Your task to perform on an android device: open app "Microsoft Outlook" (install if not already installed) Image 0: 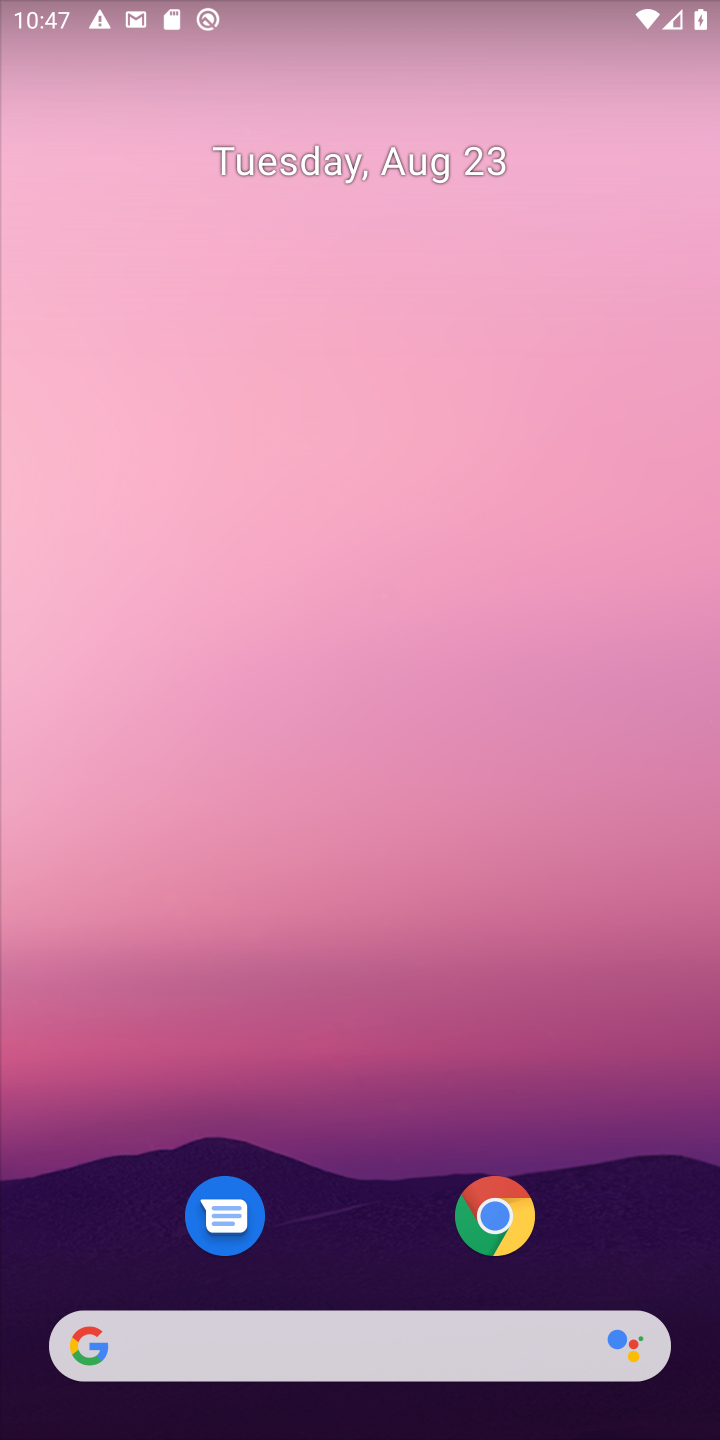
Step 0: drag from (288, 1382) to (372, 363)
Your task to perform on an android device: open app "Microsoft Outlook" (install if not already installed) Image 1: 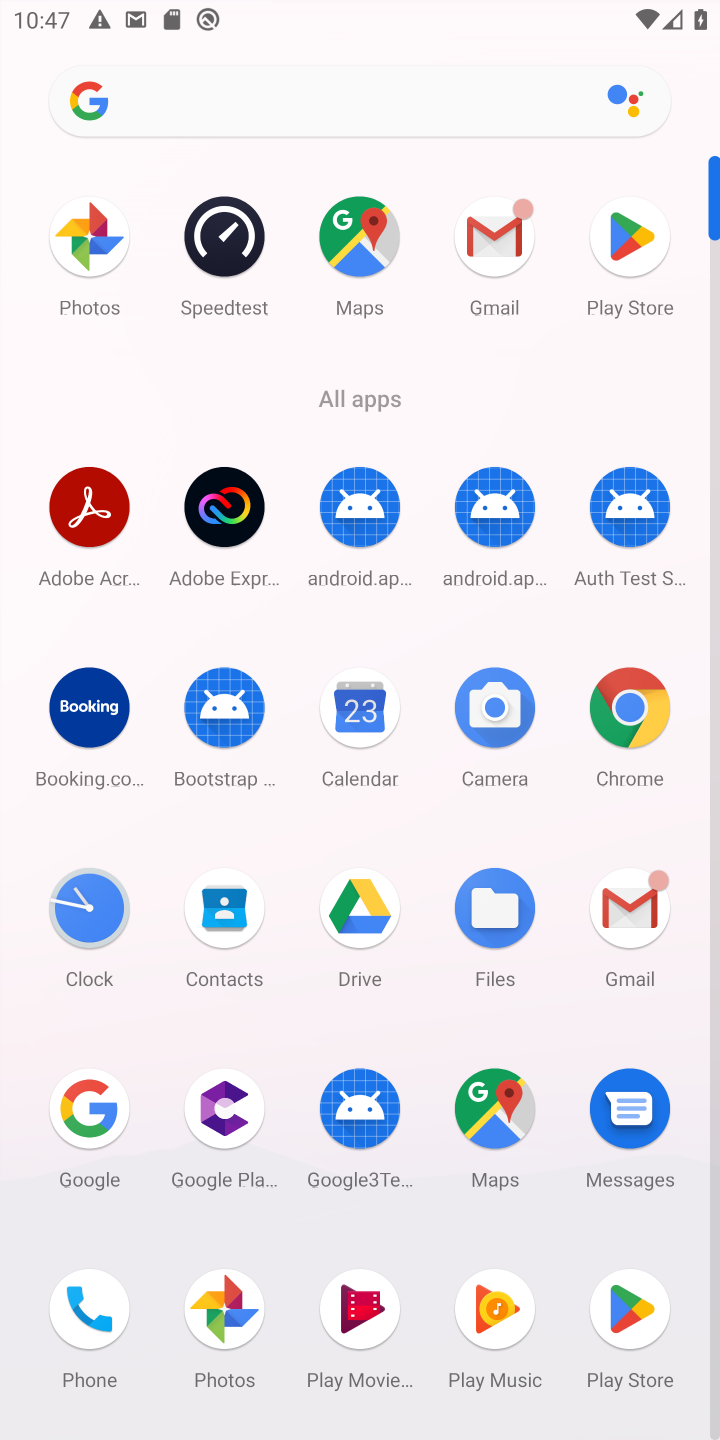
Step 1: click (625, 253)
Your task to perform on an android device: open app "Microsoft Outlook" (install if not already installed) Image 2: 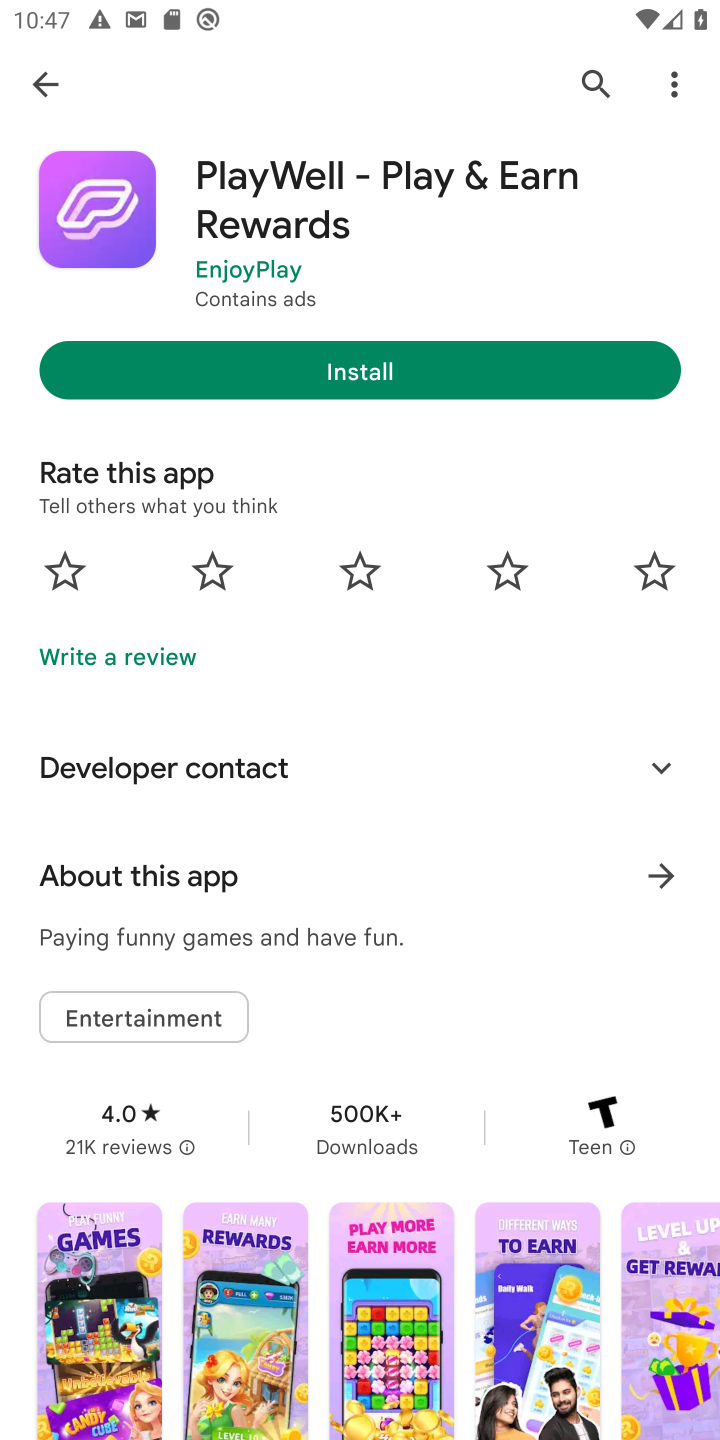
Step 2: press back button
Your task to perform on an android device: open app "Microsoft Outlook" (install if not already installed) Image 3: 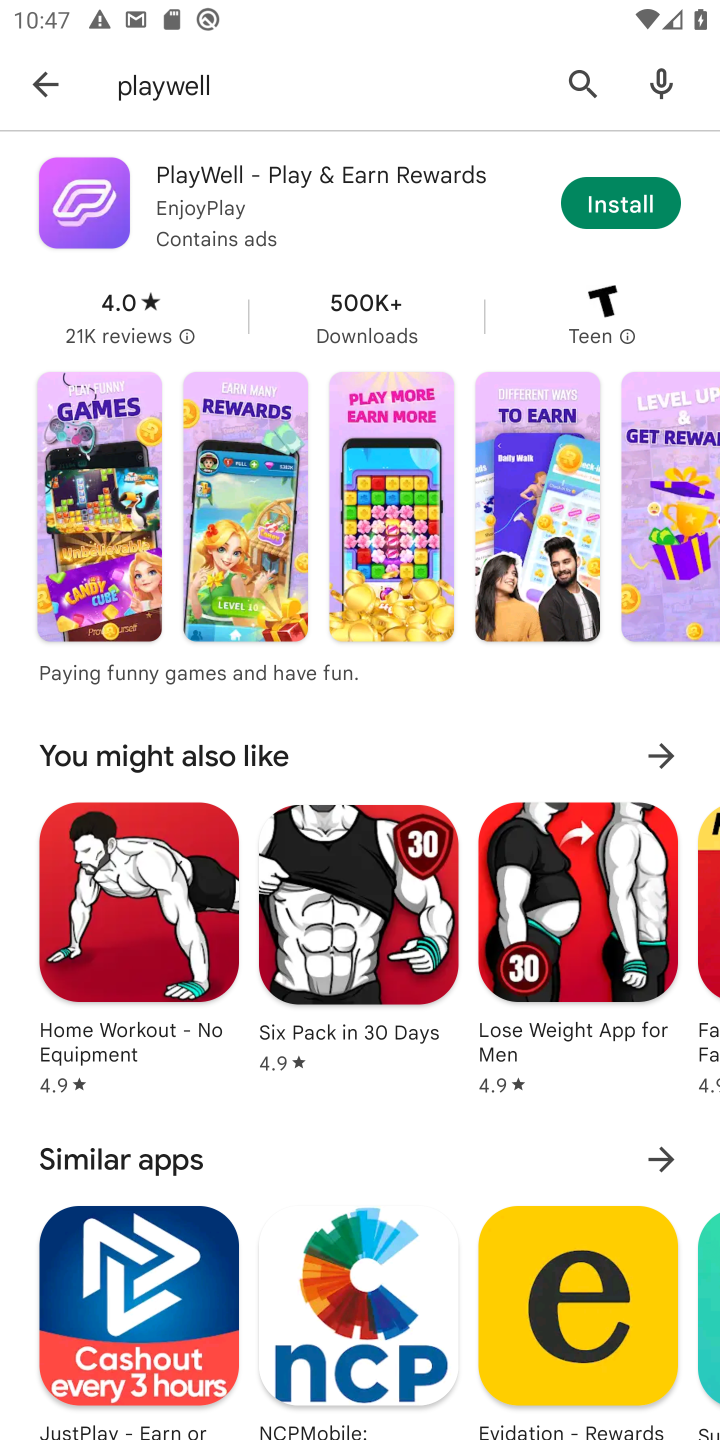
Step 3: press back button
Your task to perform on an android device: open app "Microsoft Outlook" (install if not already installed) Image 4: 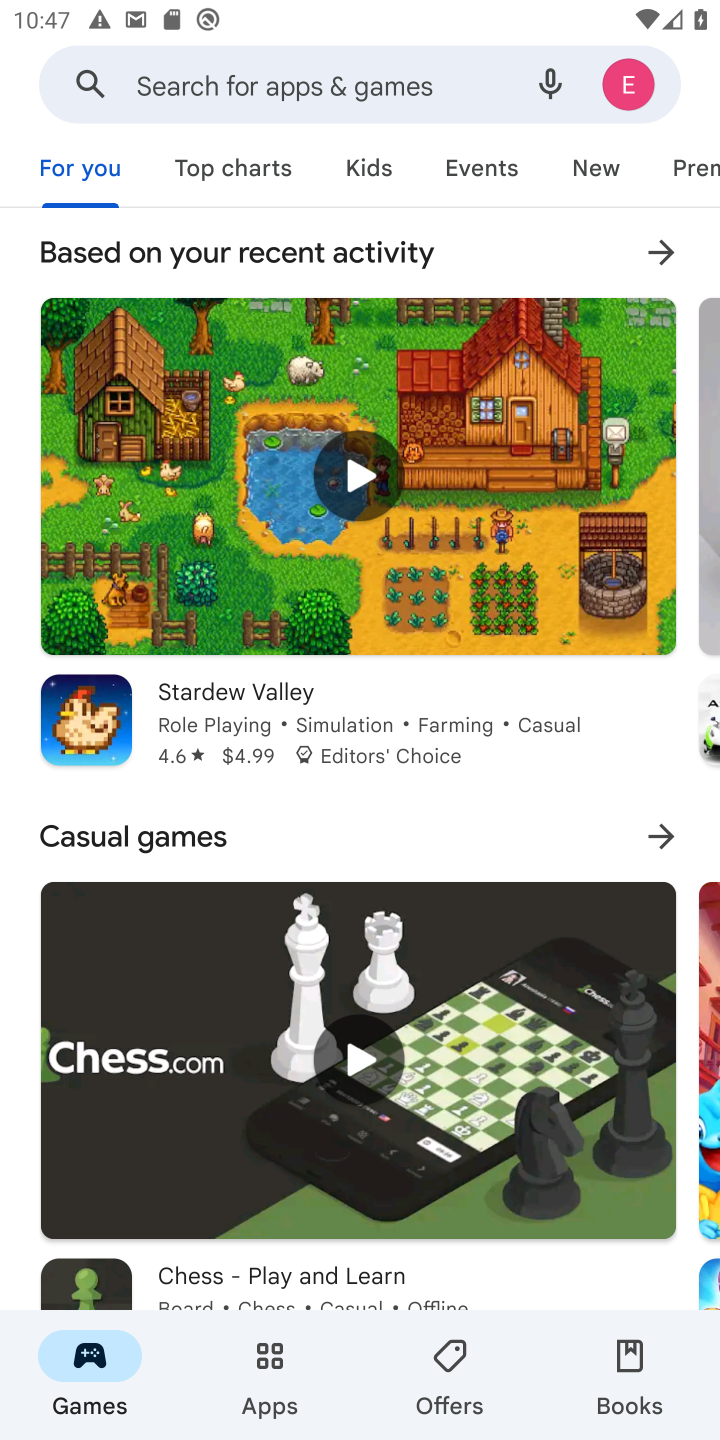
Step 4: click (278, 99)
Your task to perform on an android device: open app "Microsoft Outlook" (install if not already installed) Image 5: 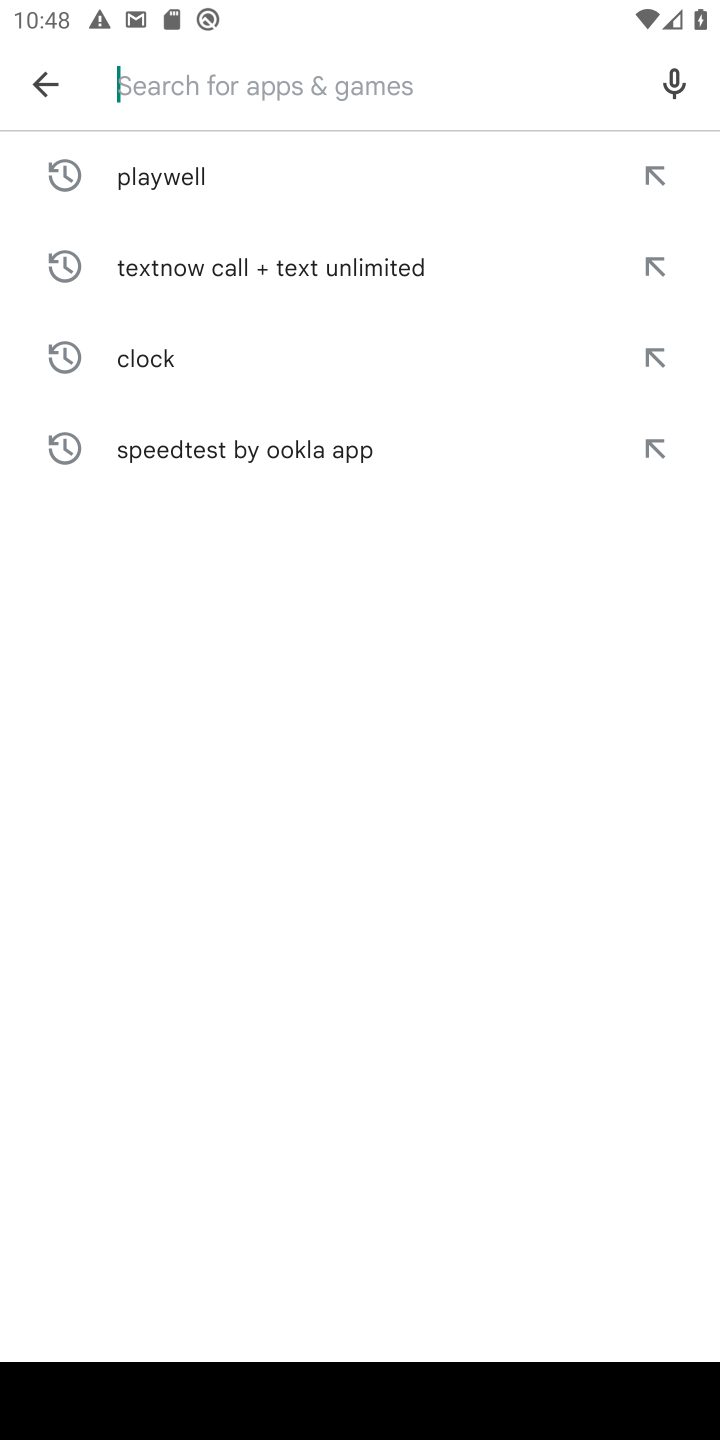
Step 5: type "Microsoft Outlook"
Your task to perform on an android device: open app "Microsoft Outlook" (install if not already installed) Image 6: 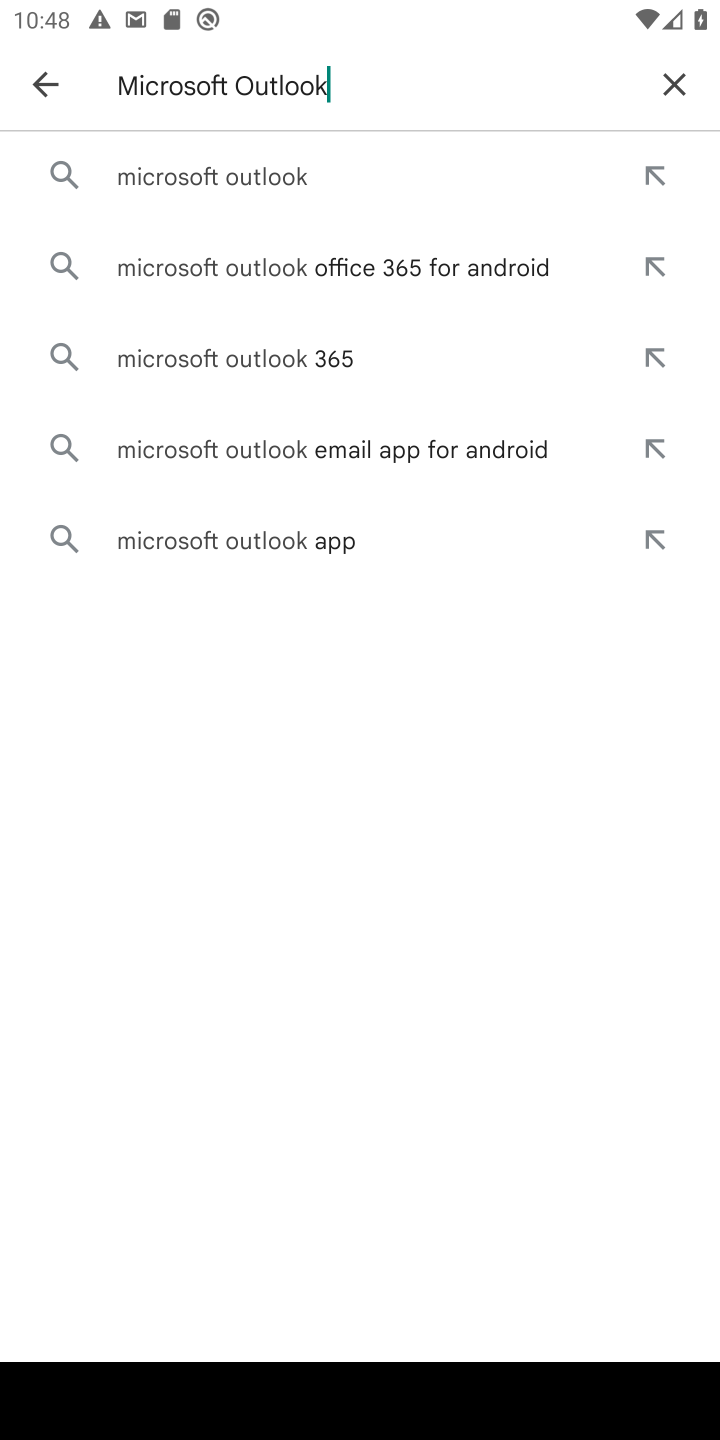
Step 6: click (201, 174)
Your task to perform on an android device: open app "Microsoft Outlook" (install if not already installed) Image 7: 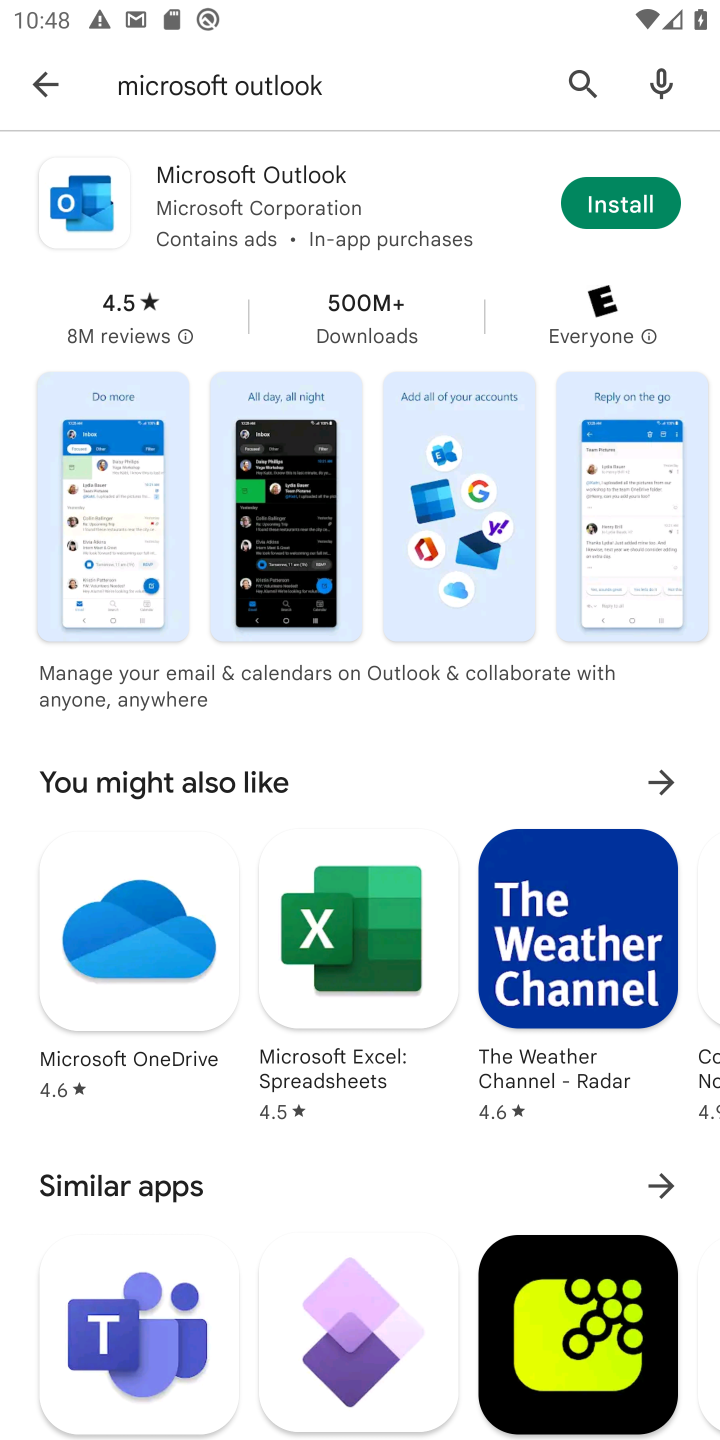
Step 7: click (619, 197)
Your task to perform on an android device: open app "Microsoft Outlook" (install if not already installed) Image 8: 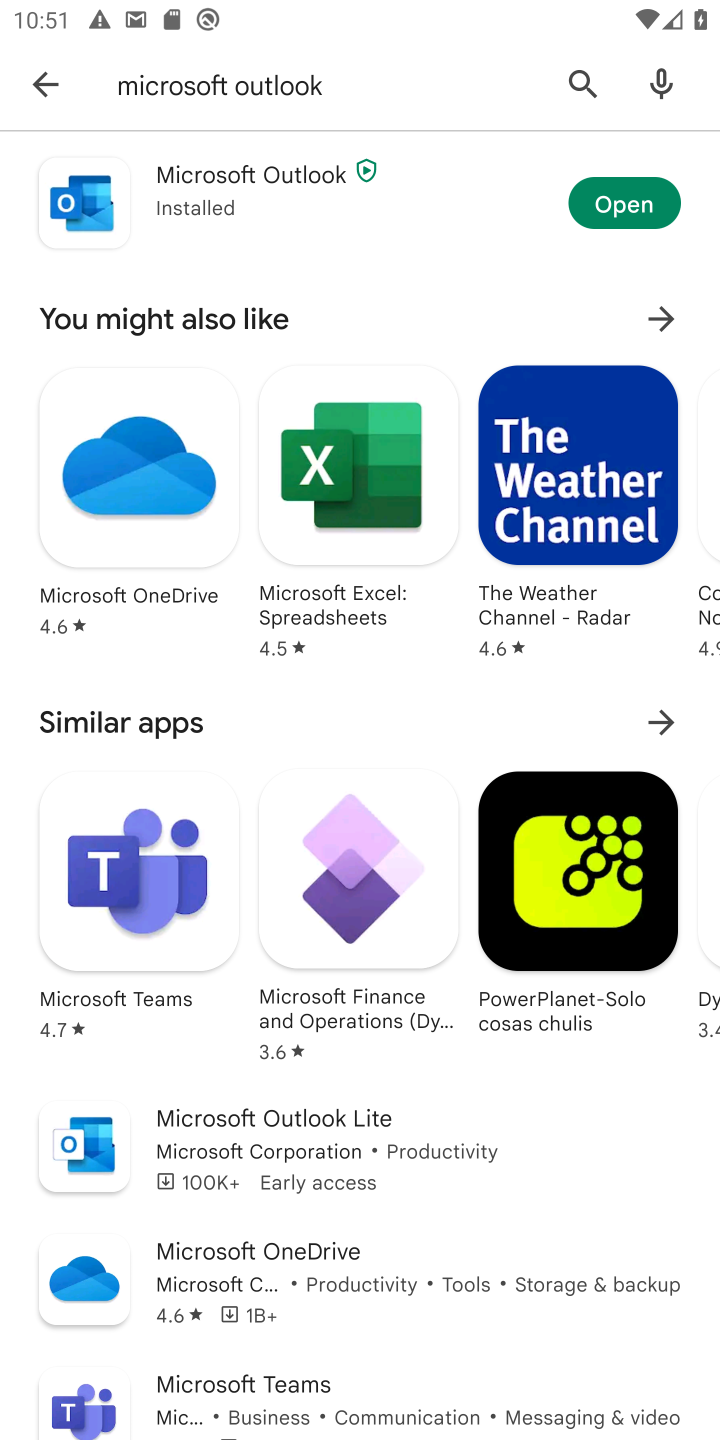
Step 8: click (613, 198)
Your task to perform on an android device: open app "Microsoft Outlook" (install if not already installed) Image 9: 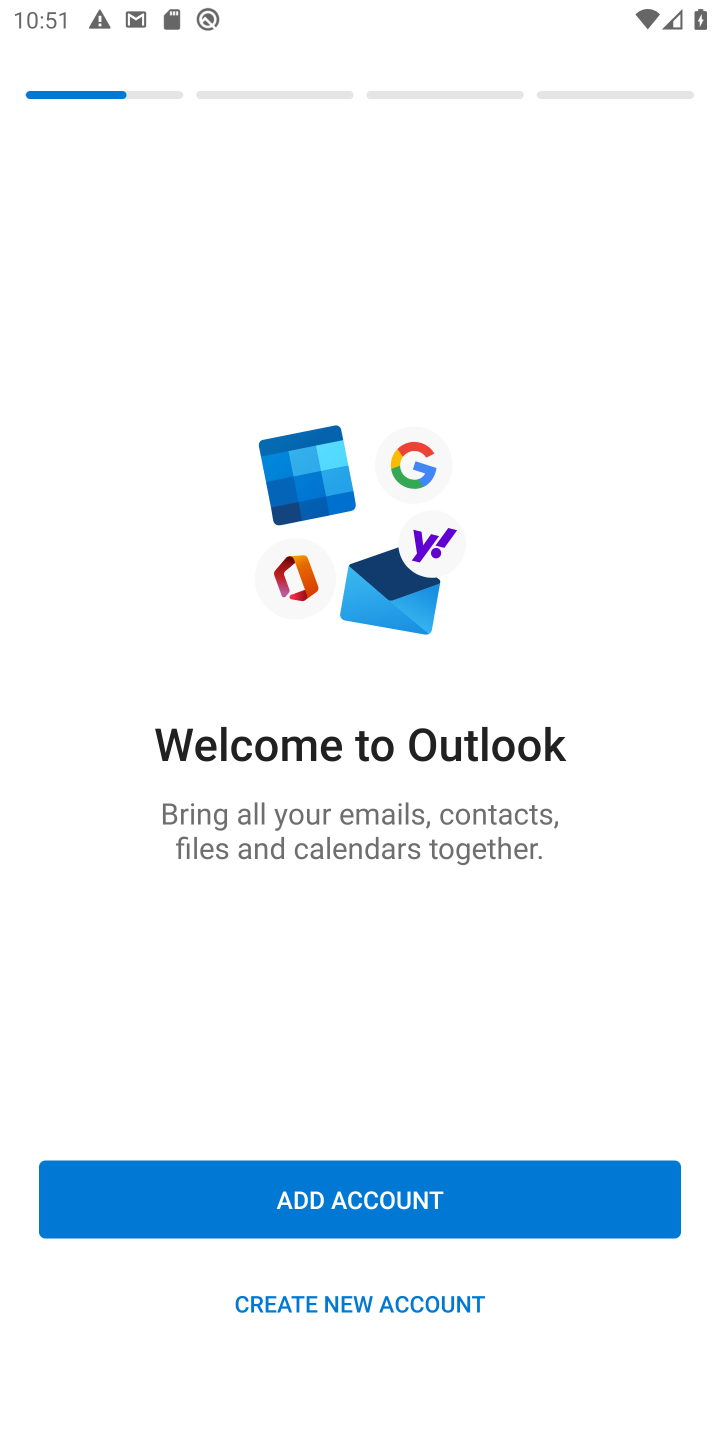
Step 9: task complete